Your task to perform on an android device: What's on my calendar today? Image 0: 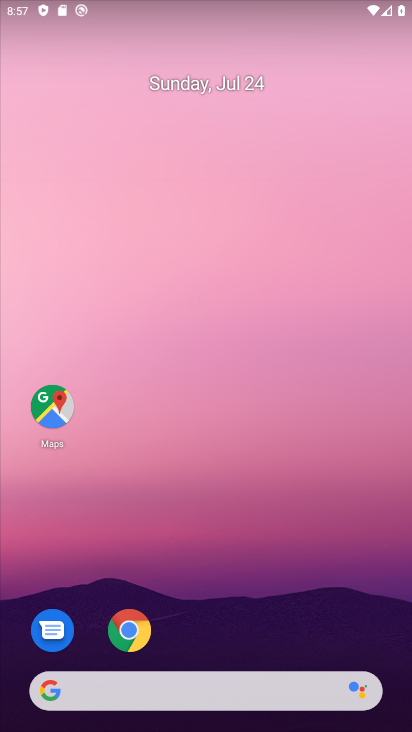
Step 0: press home button
Your task to perform on an android device: What's on my calendar today? Image 1: 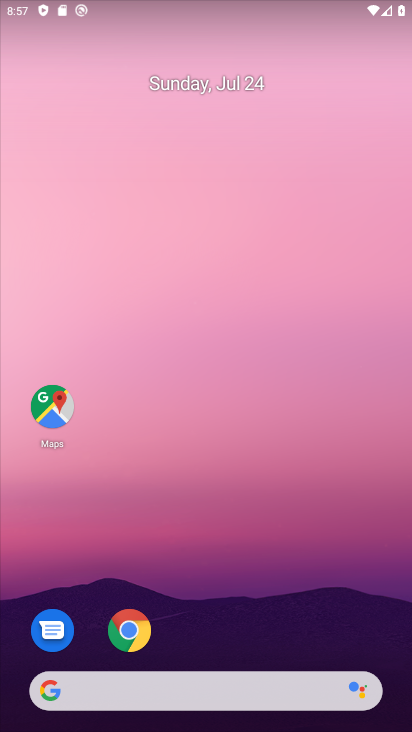
Step 1: drag from (216, 576) to (137, 46)
Your task to perform on an android device: What's on my calendar today? Image 2: 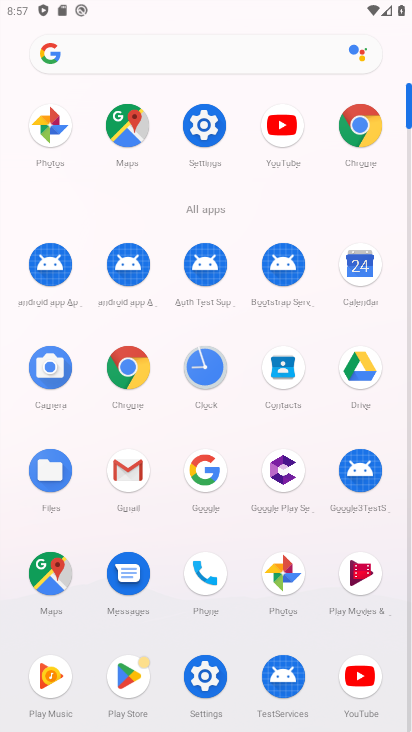
Step 2: click (361, 256)
Your task to perform on an android device: What's on my calendar today? Image 3: 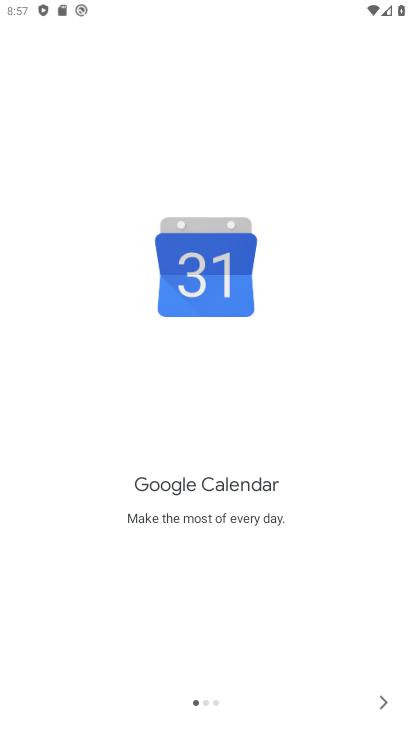
Step 3: click (379, 703)
Your task to perform on an android device: What's on my calendar today? Image 4: 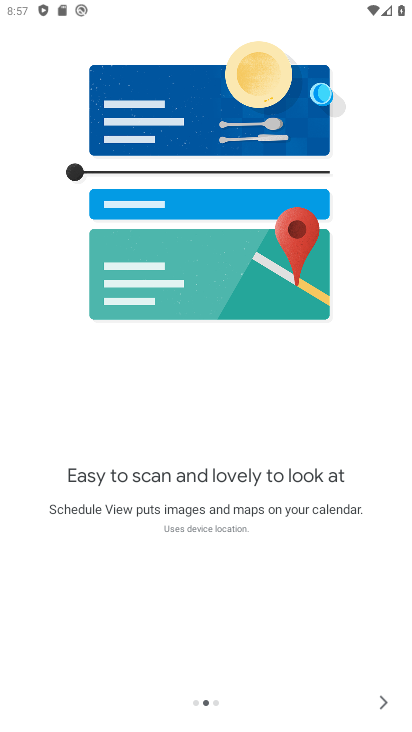
Step 4: click (379, 703)
Your task to perform on an android device: What's on my calendar today? Image 5: 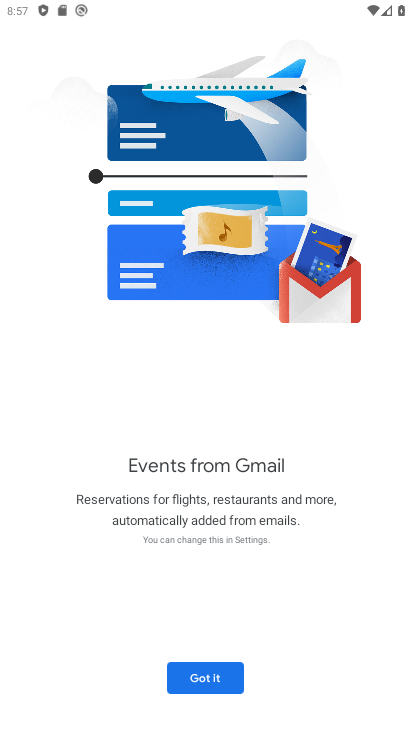
Step 5: click (203, 683)
Your task to perform on an android device: What's on my calendar today? Image 6: 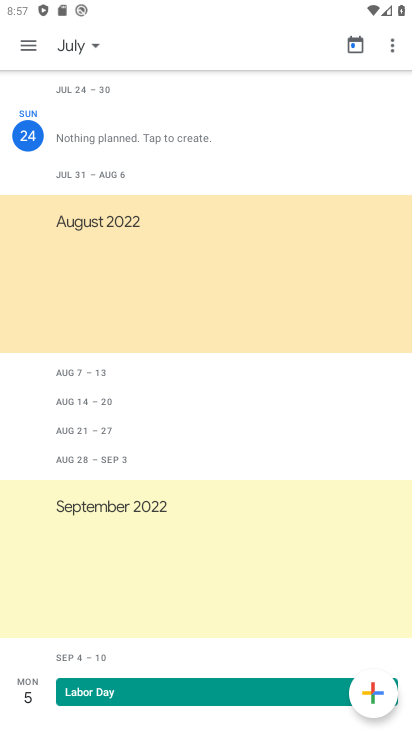
Step 6: click (28, 45)
Your task to perform on an android device: What's on my calendar today? Image 7: 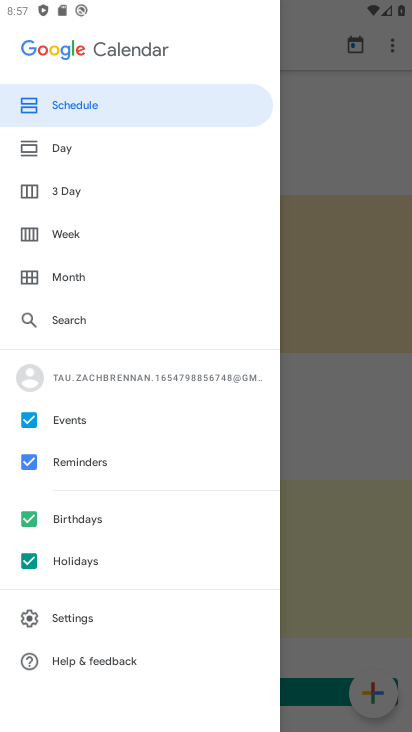
Step 7: click (55, 141)
Your task to perform on an android device: What's on my calendar today? Image 8: 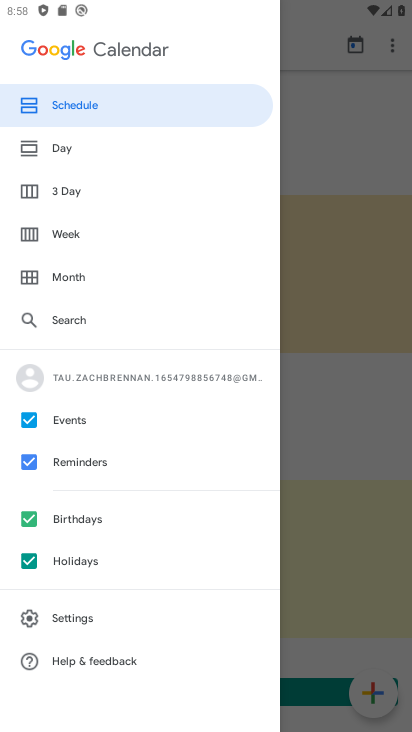
Step 8: click (68, 142)
Your task to perform on an android device: What's on my calendar today? Image 9: 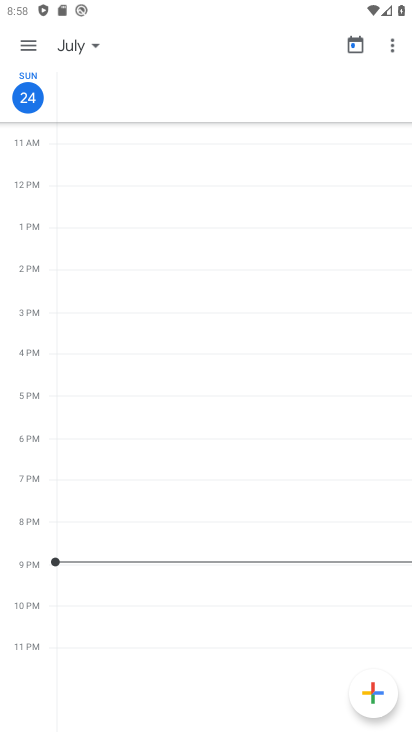
Step 9: task complete